Your task to perform on an android device: Go to calendar. Show me events next week Image 0: 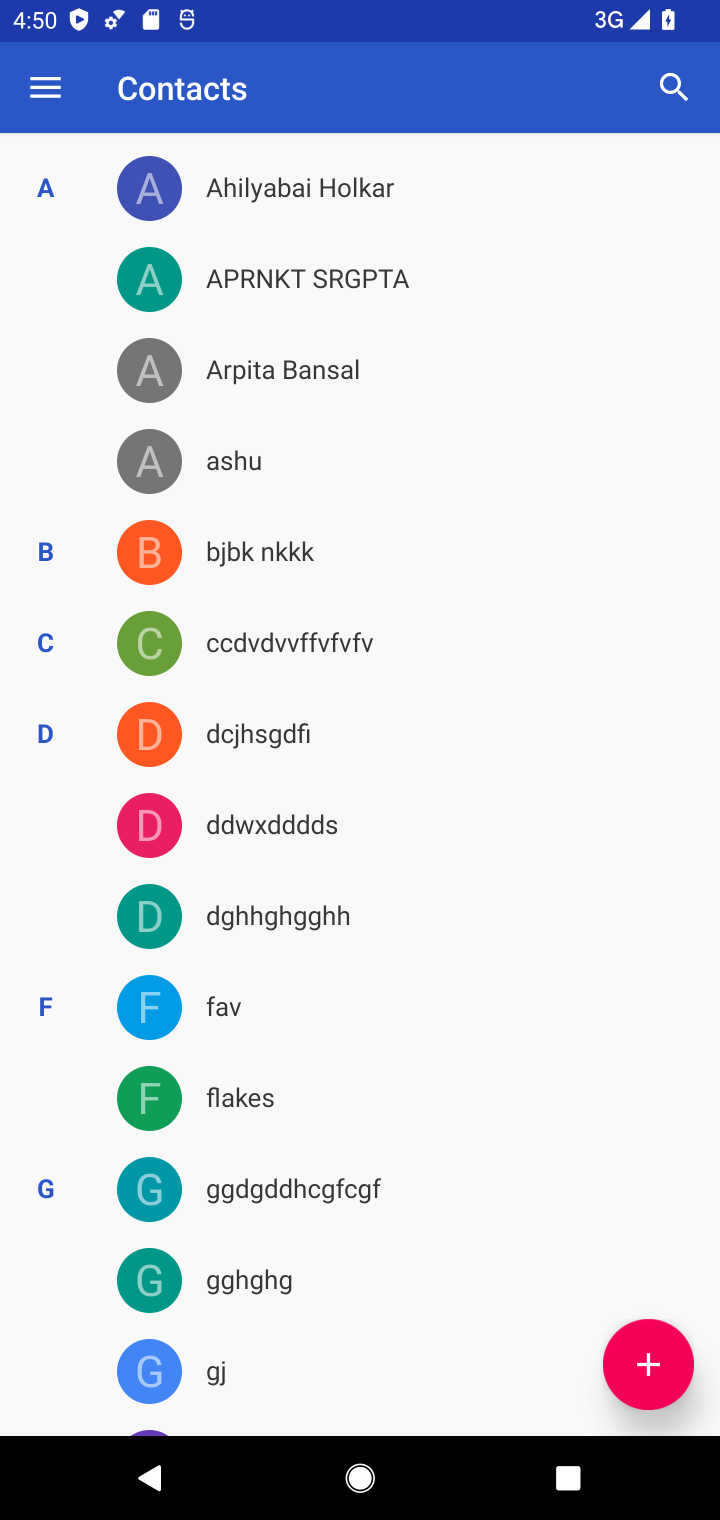
Step 0: press home button
Your task to perform on an android device: Go to calendar. Show me events next week Image 1: 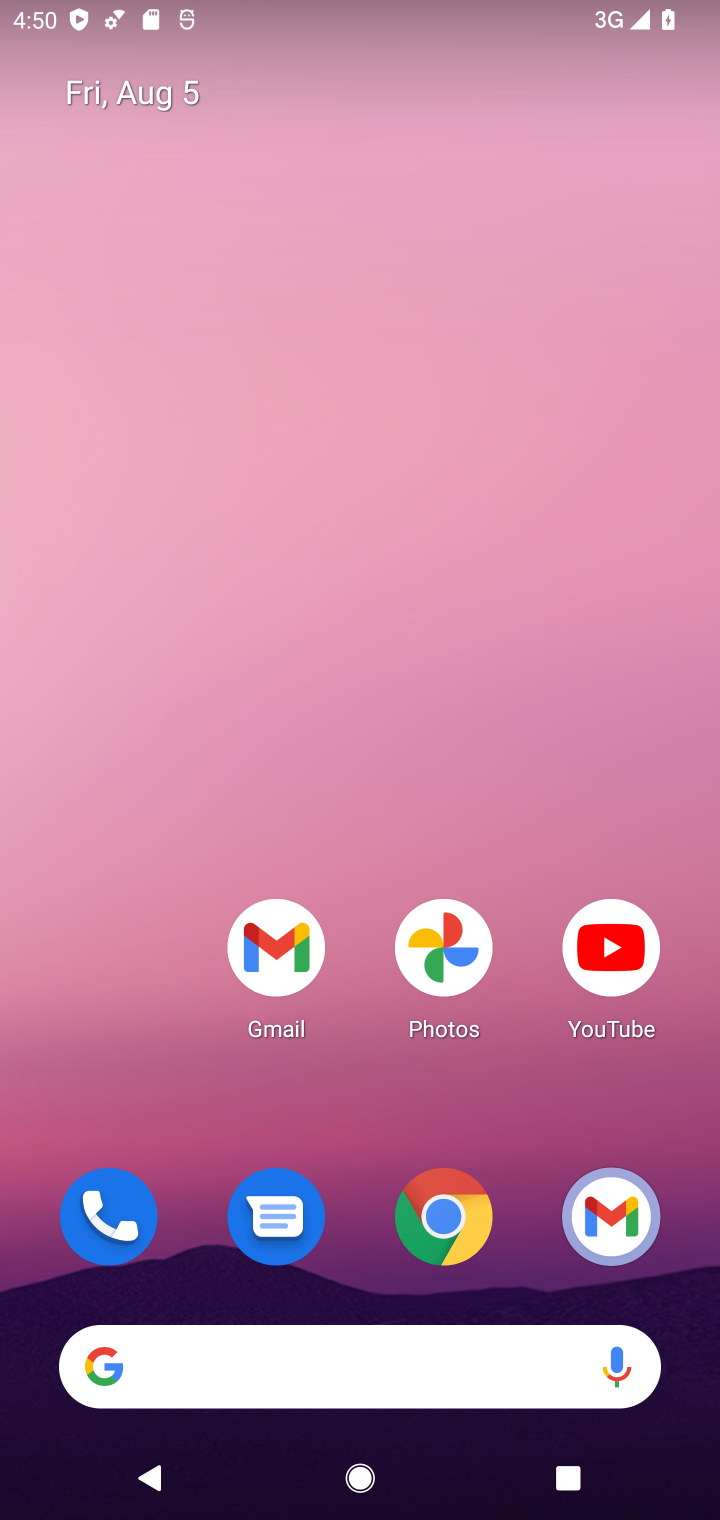
Step 1: drag from (365, 1072) to (371, 309)
Your task to perform on an android device: Go to calendar. Show me events next week Image 2: 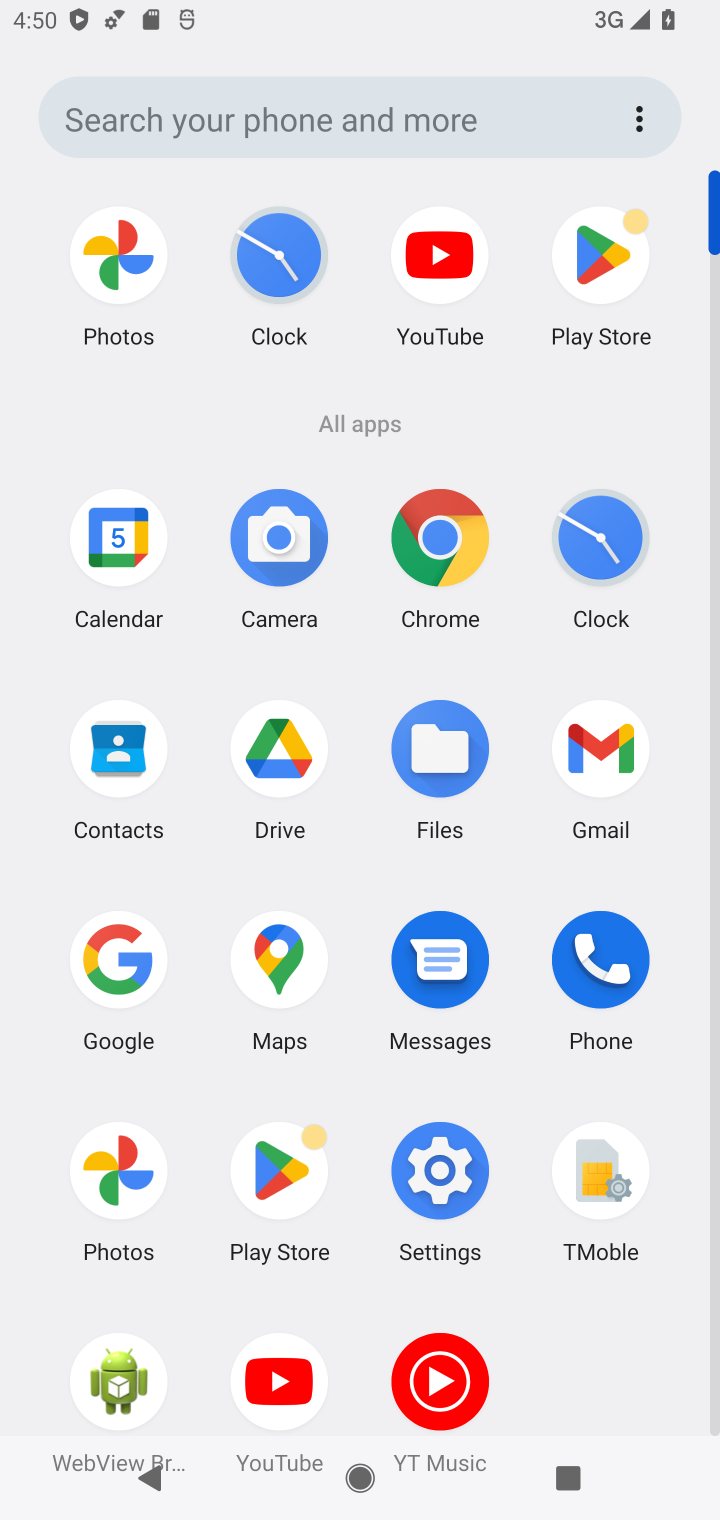
Step 2: click (135, 540)
Your task to perform on an android device: Go to calendar. Show me events next week Image 3: 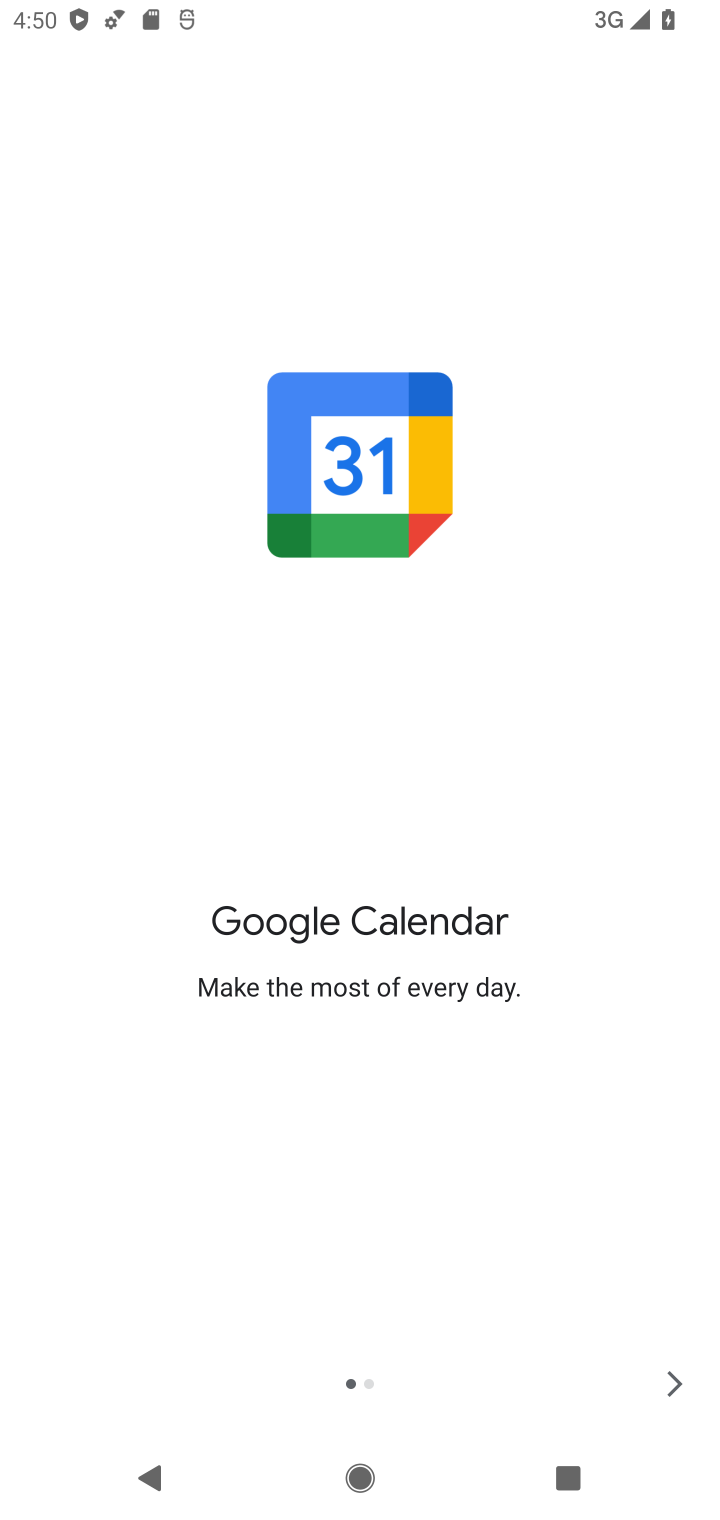
Step 3: click (681, 1395)
Your task to perform on an android device: Go to calendar. Show me events next week Image 4: 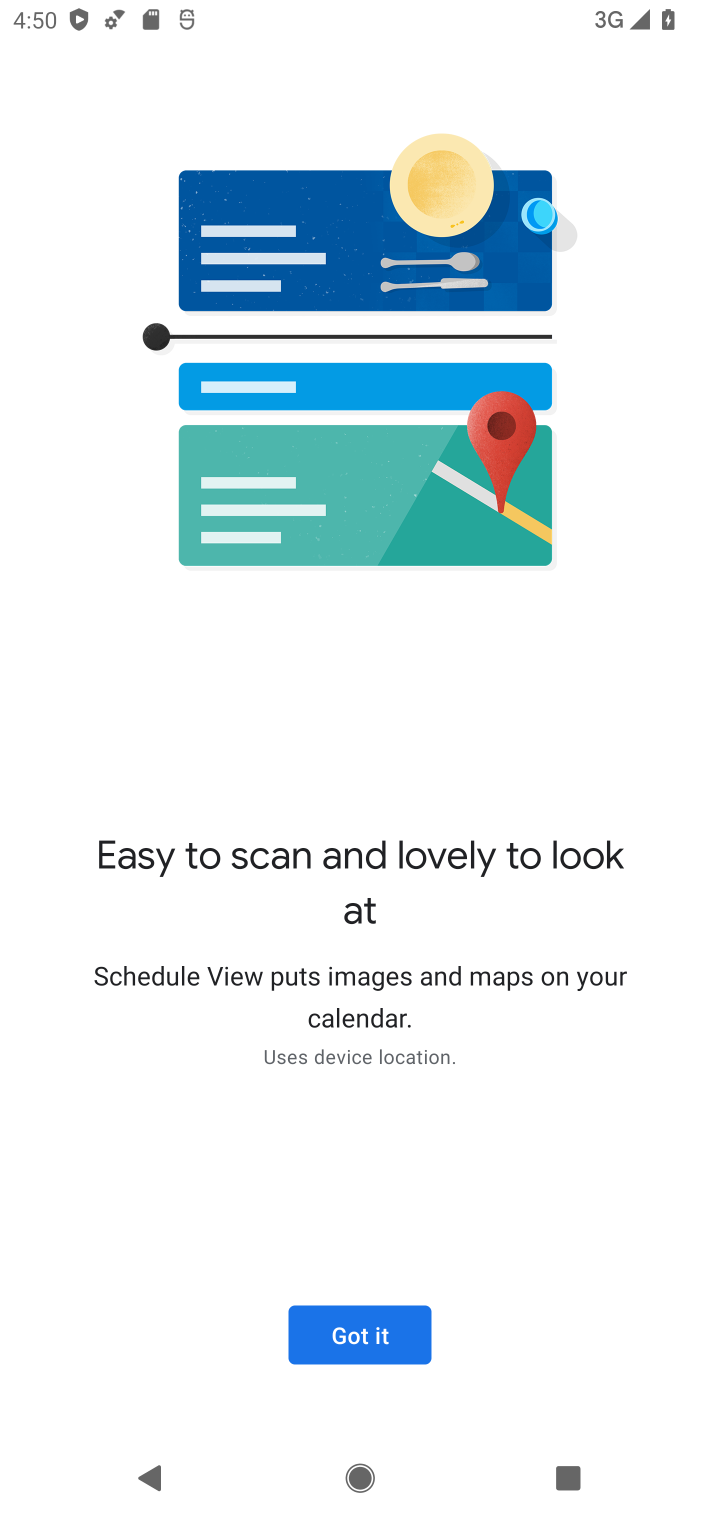
Step 4: click (396, 1322)
Your task to perform on an android device: Go to calendar. Show me events next week Image 5: 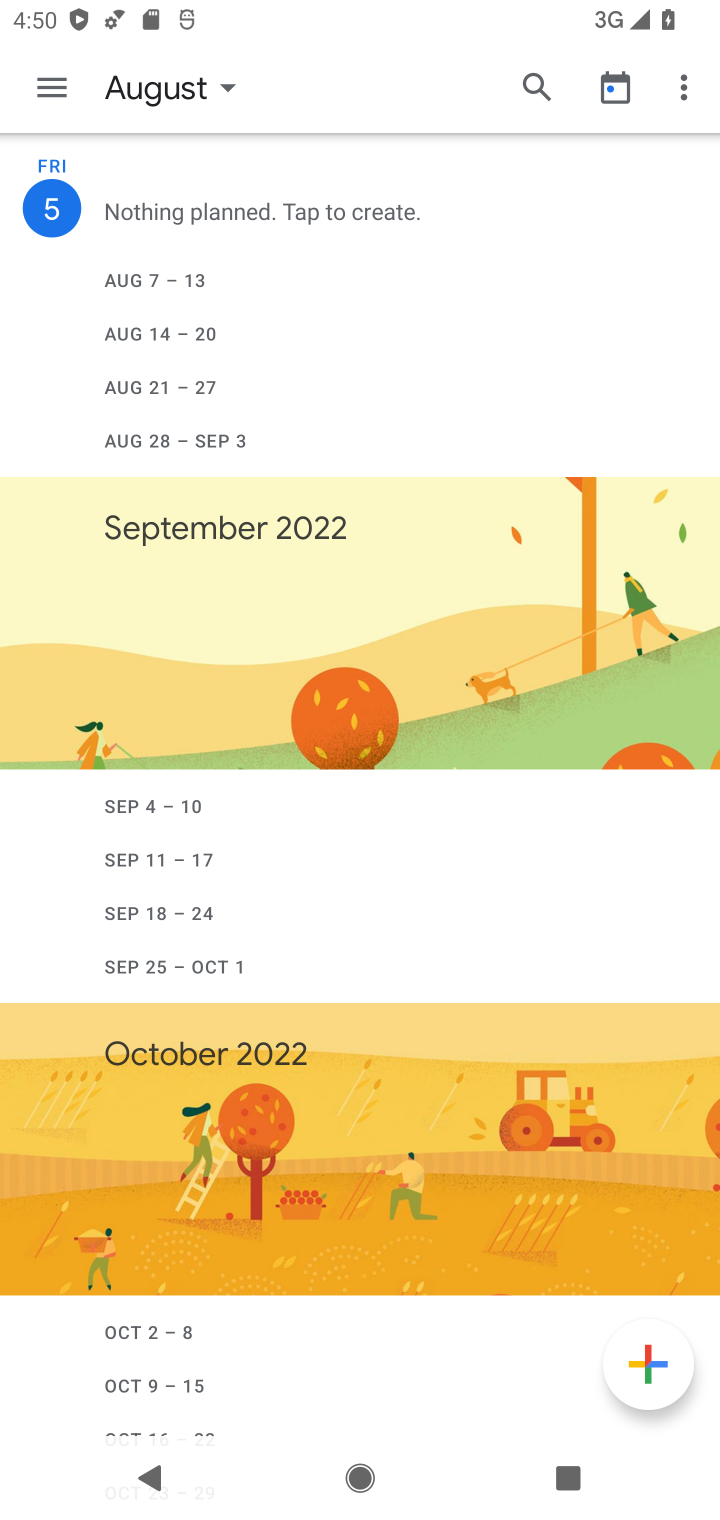
Step 5: click (185, 89)
Your task to perform on an android device: Go to calendar. Show me events next week Image 6: 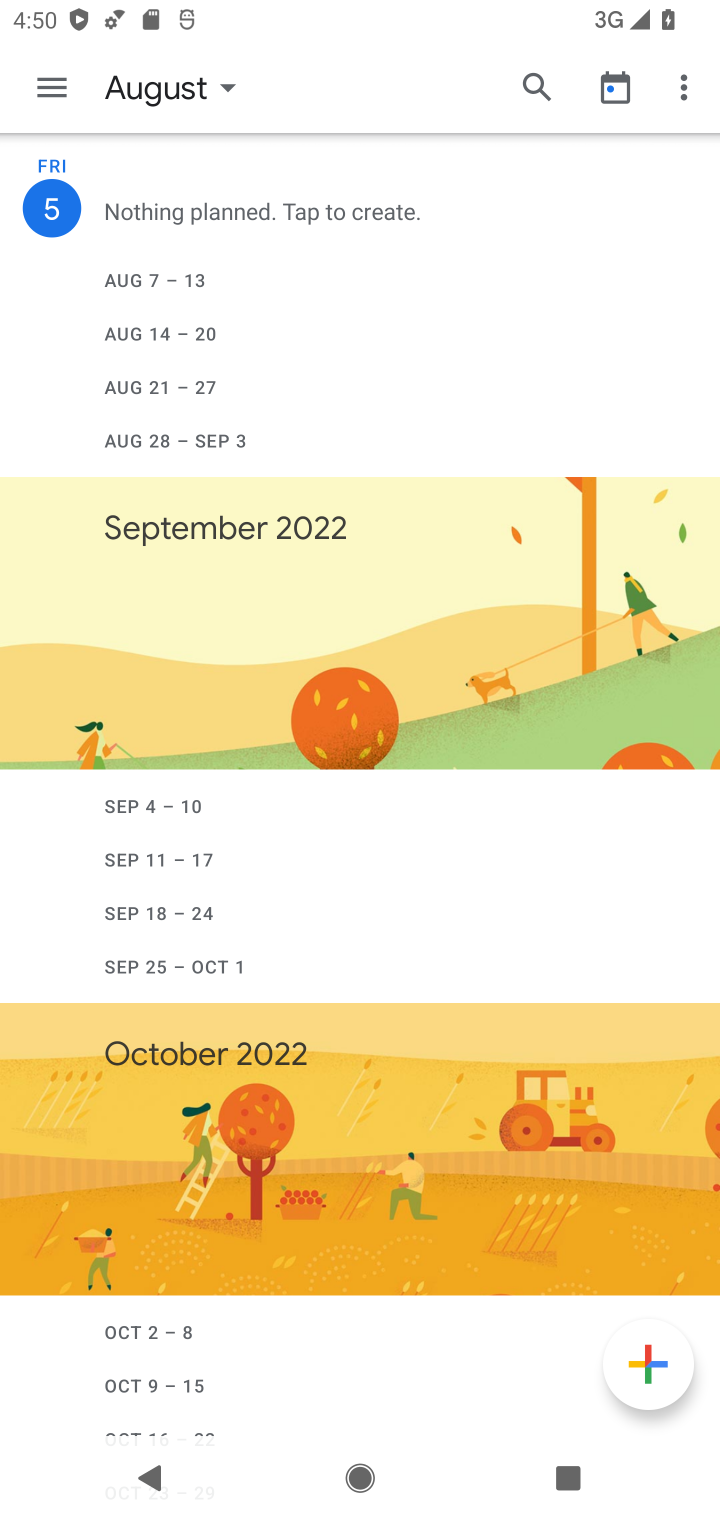
Step 6: click (185, 89)
Your task to perform on an android device: Go to calendar. Show me events next week Image 7: 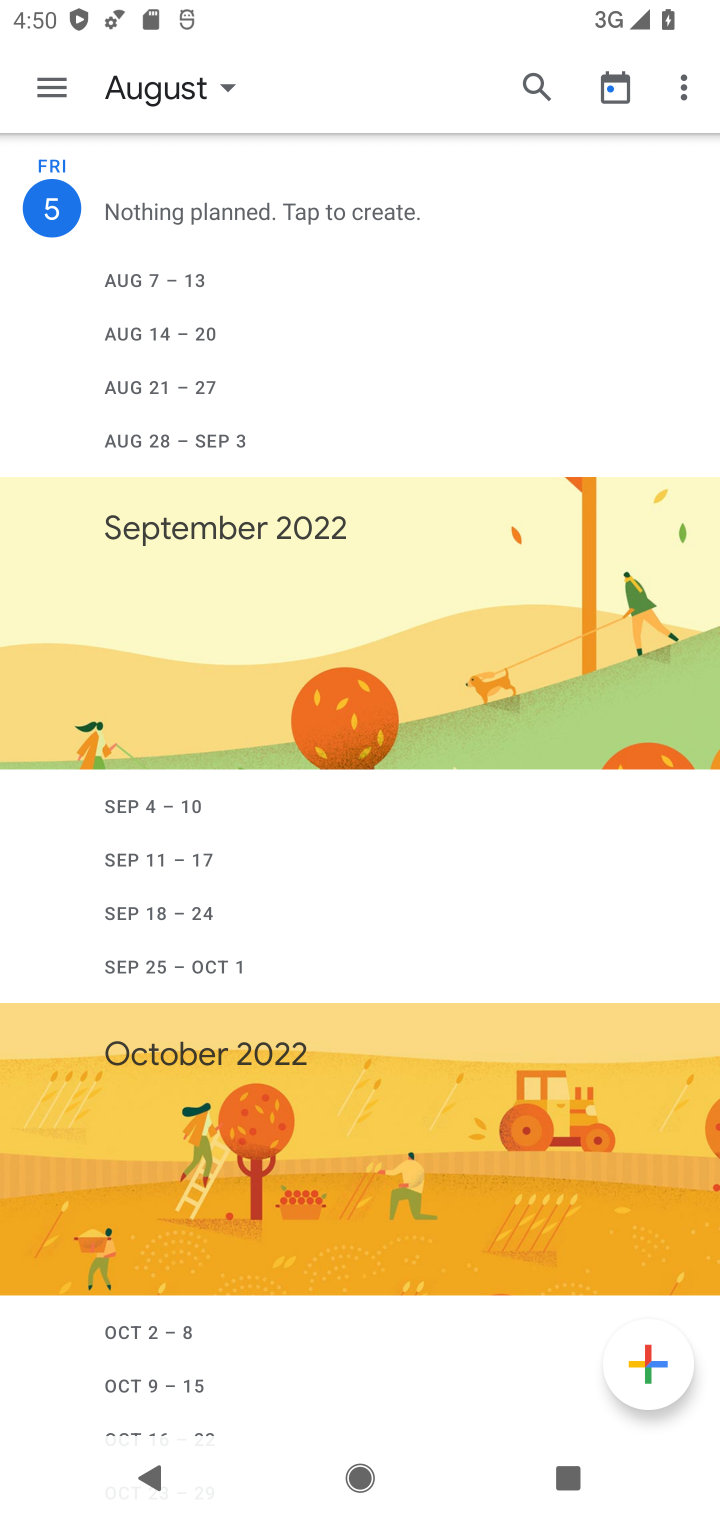
Step 7: click (180, 61)
Your task to perform on an android device: Go to calendar. Show me events next week Image 8: 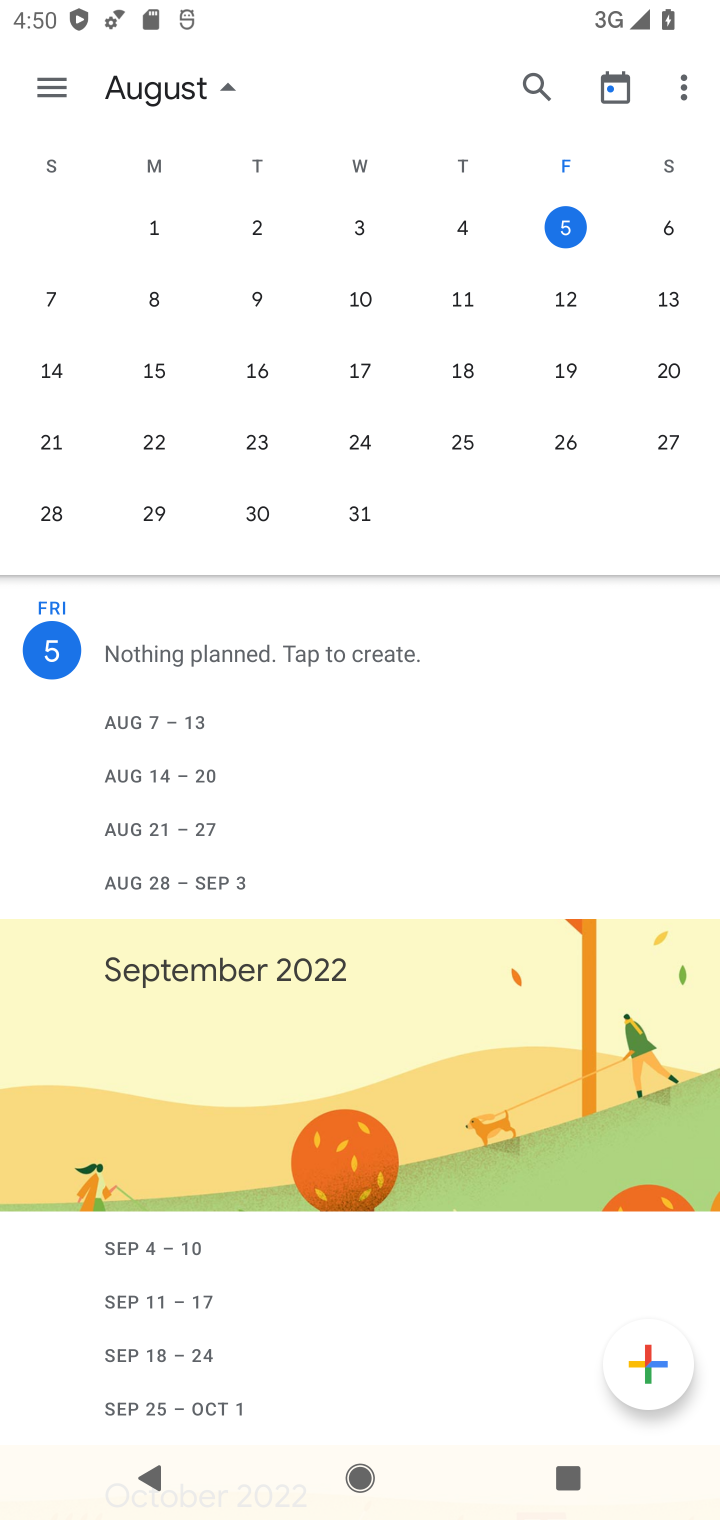
Step 8: click (67, 295)
Your task to perform on an android device: Go to calendar. Show me events next week Image 9: 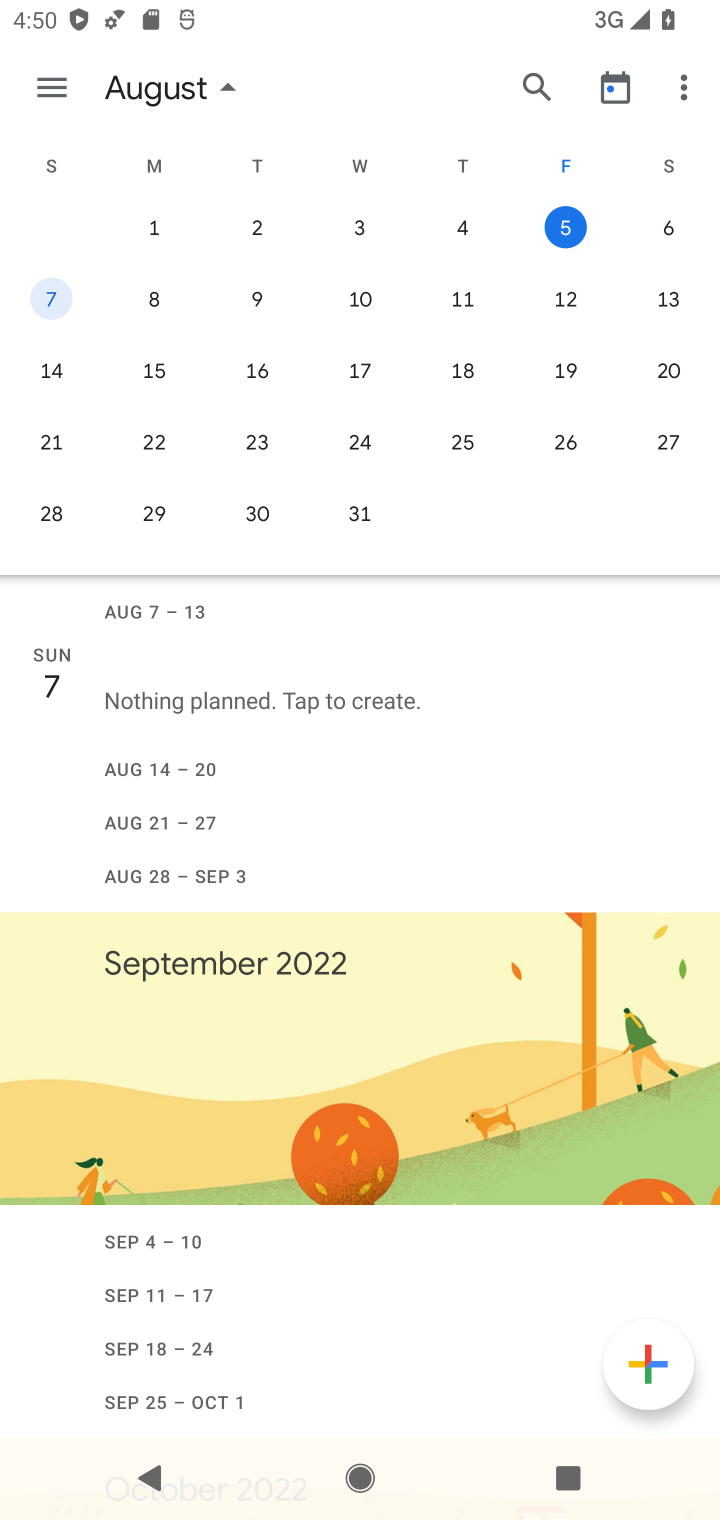
Step 9: click (145, 303)
Your task to perform on an android device: Go to calendar. Show me events next week Image 10: 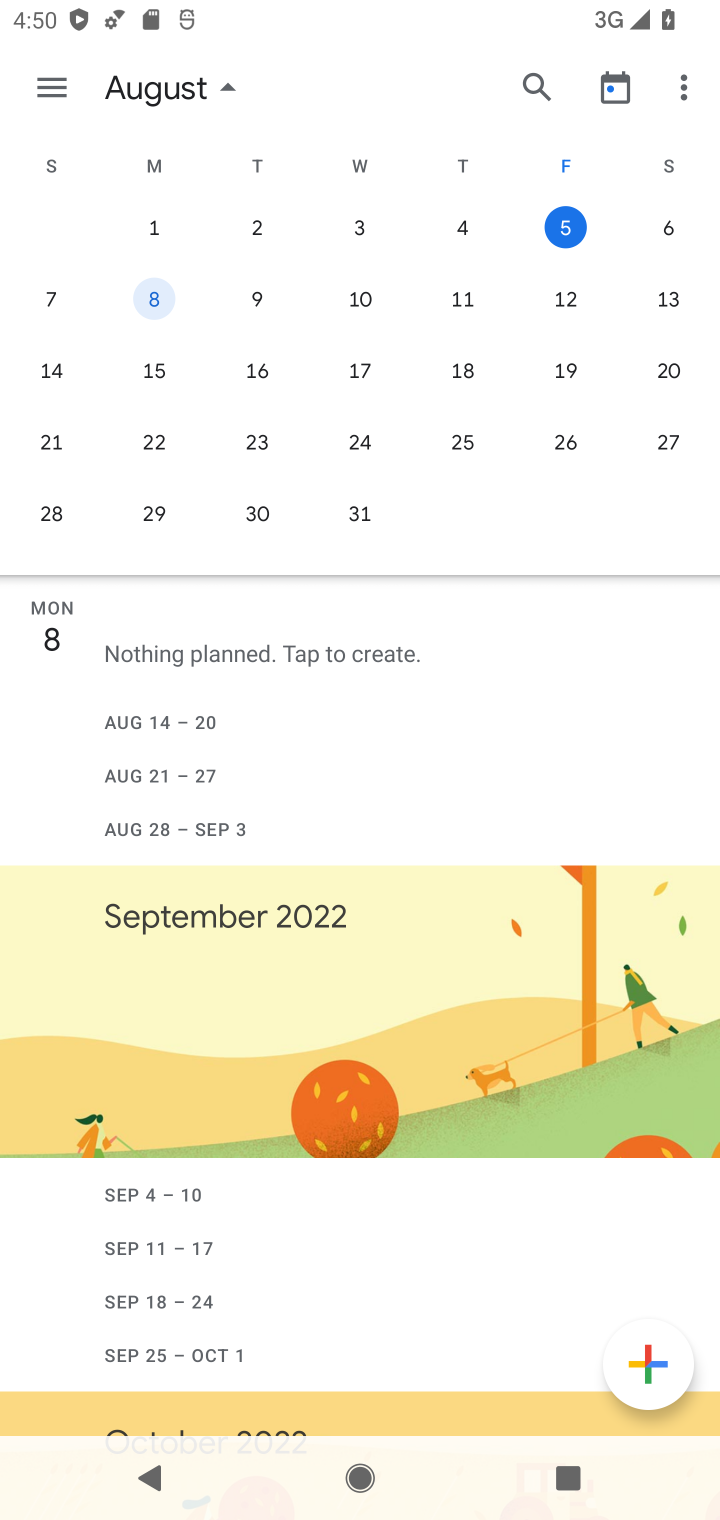
Step 10: click (242, 303)
Your task to perform on an android device: Go to calendar. Show me events next week Image 11: 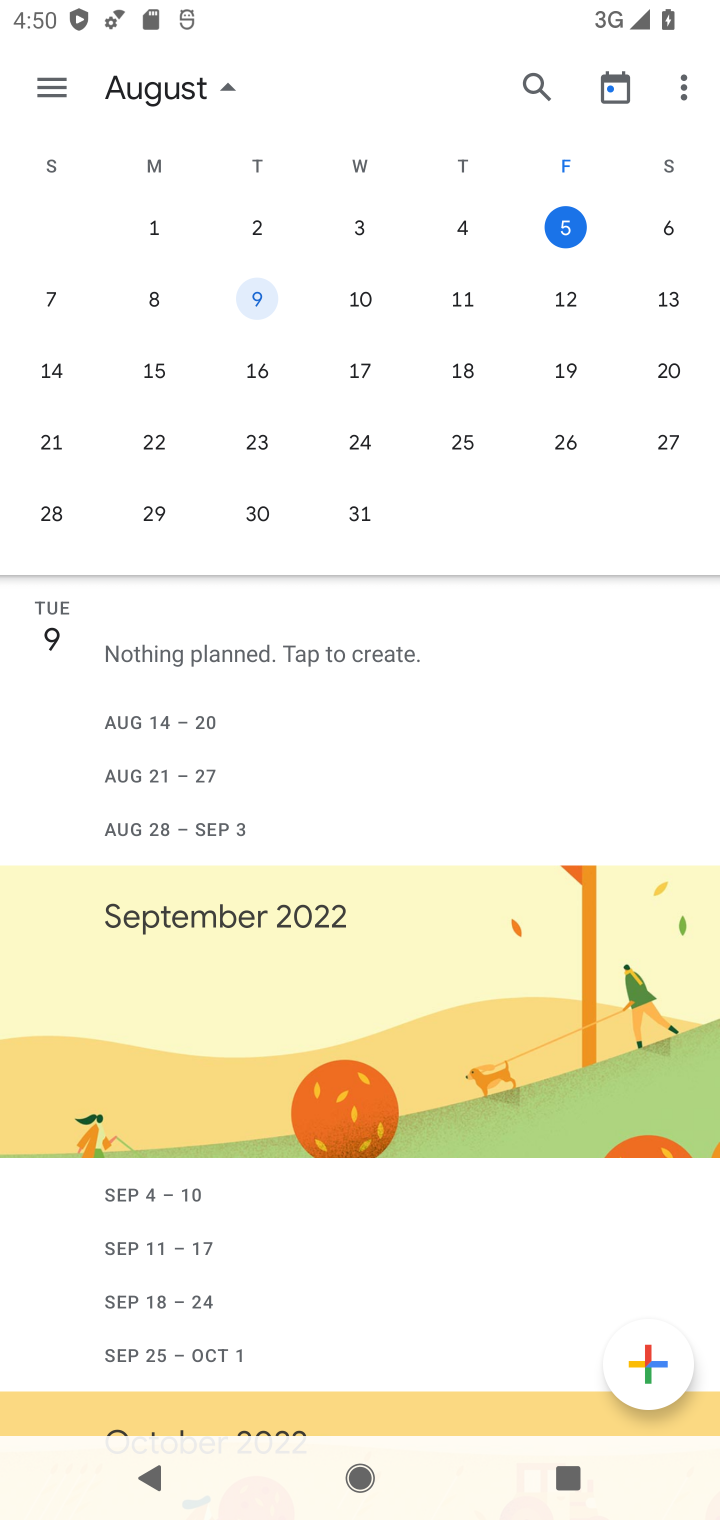
Step 11: click (345, 302)
Your task to perform on an android device: Go to calendar. Show me events next week Image 12: 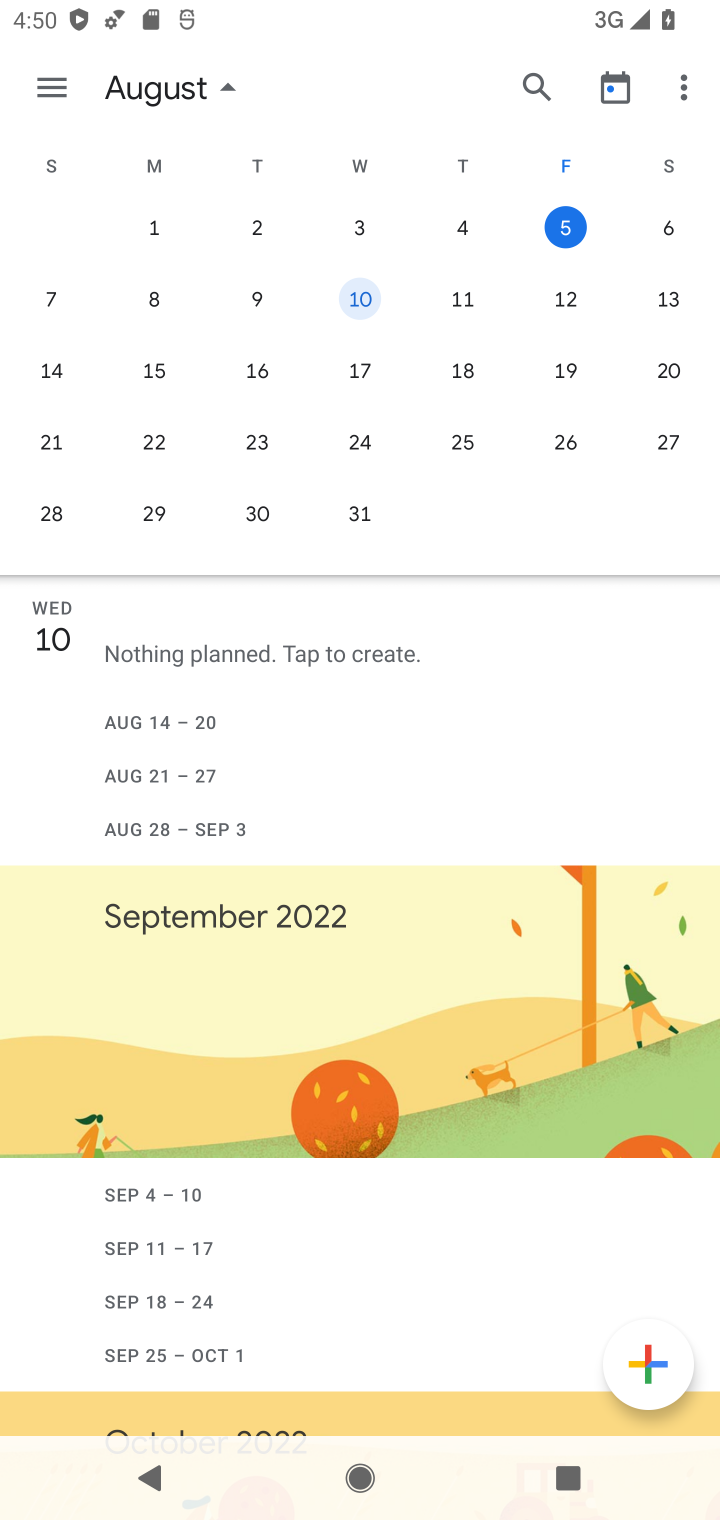
Step 12: click (445, 302)
Your task to perform on an android device: Go to calendar. Show me events next week Image 13: 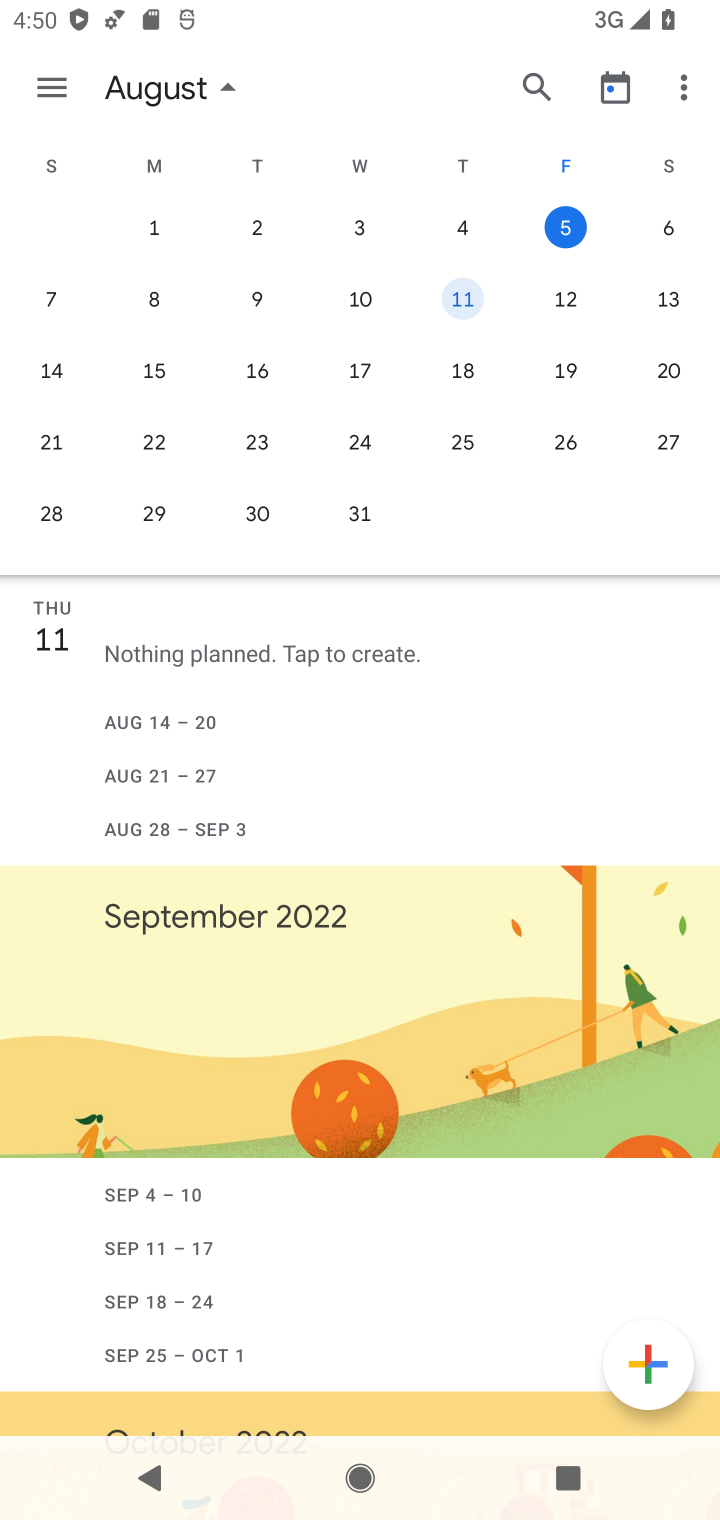
Step 13: click (552, 302)
Your task to perform on an android device: Go to calendar. Show me events next week Image 14: 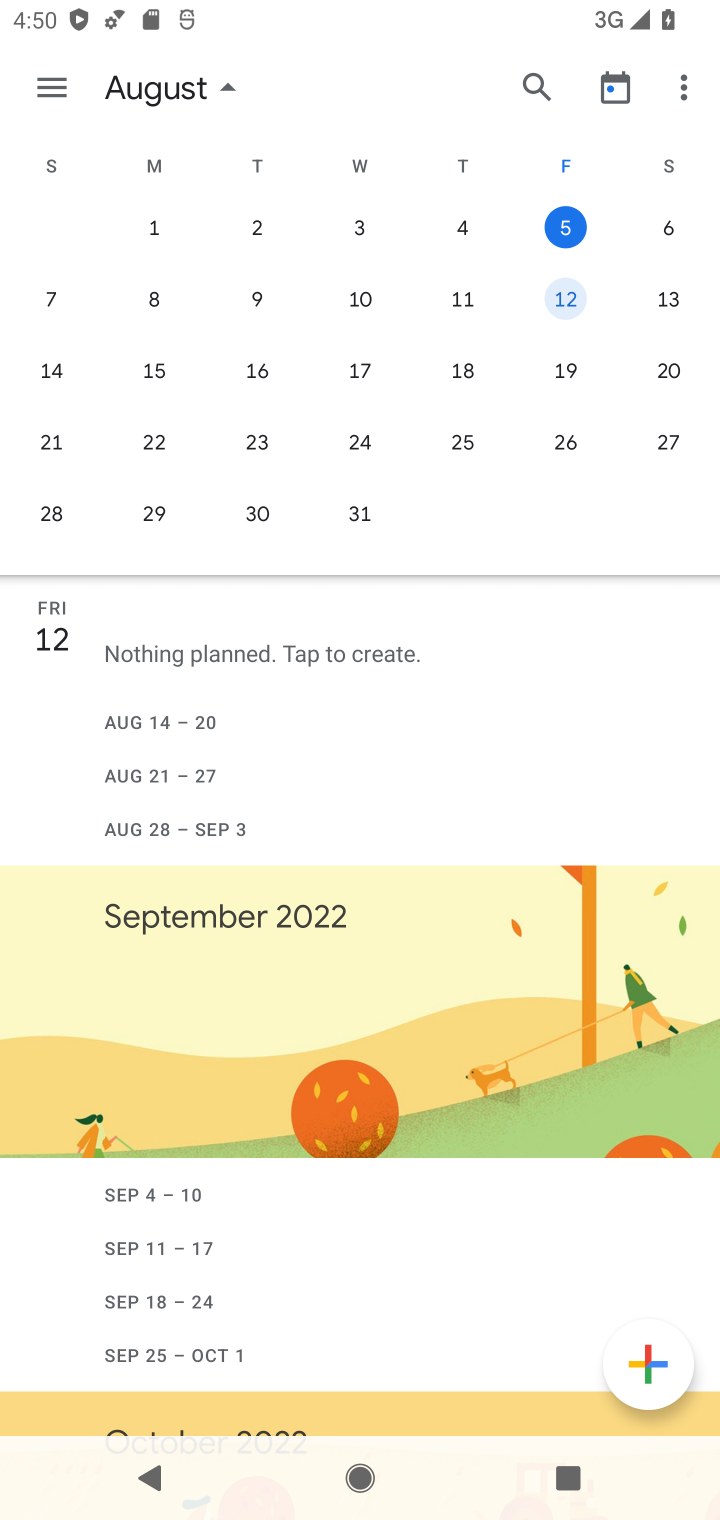
Step 14: click (677, 294)
Your task to perform on an android device: Go to calendar. Show me events next week Image 15: 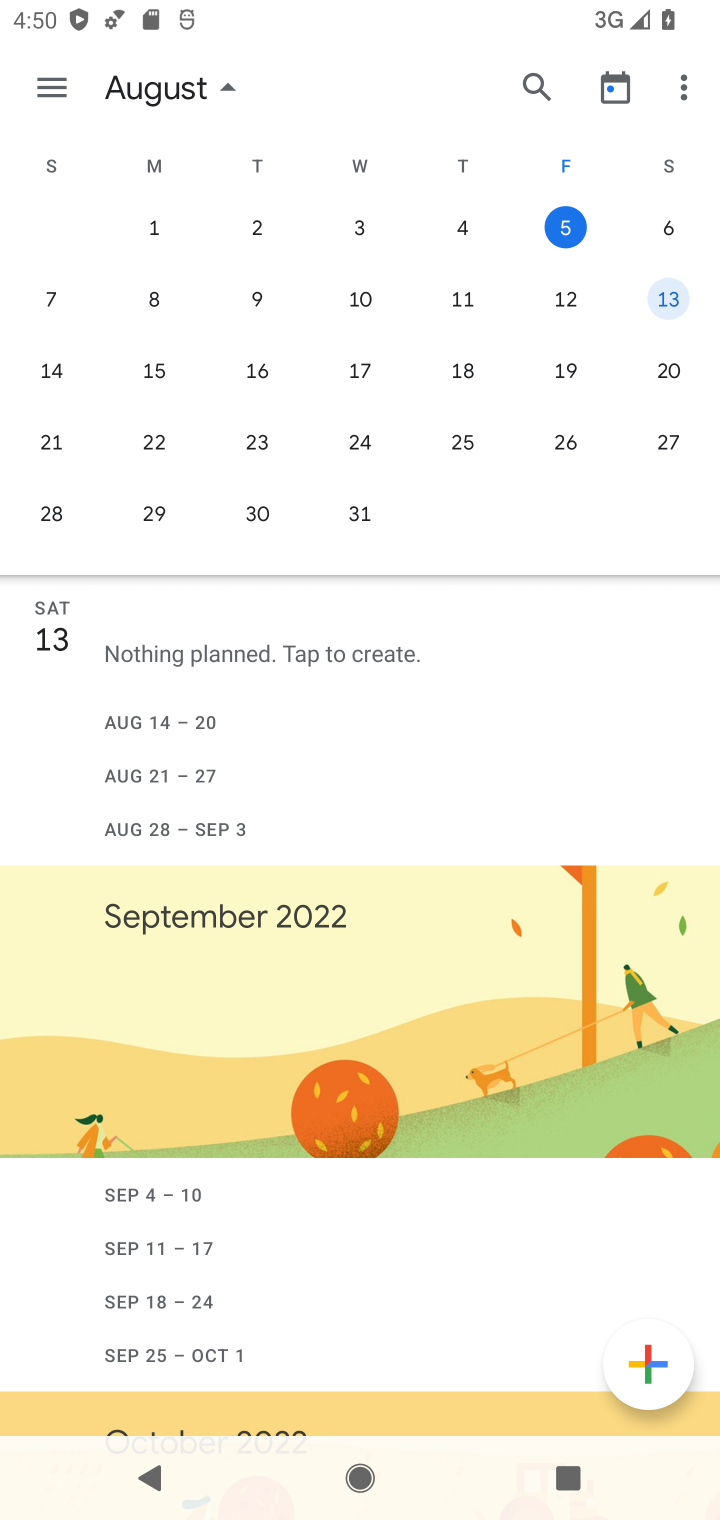
Step 15: task complete